Your task to perform on an android device: Open Reddit.com Image 0: 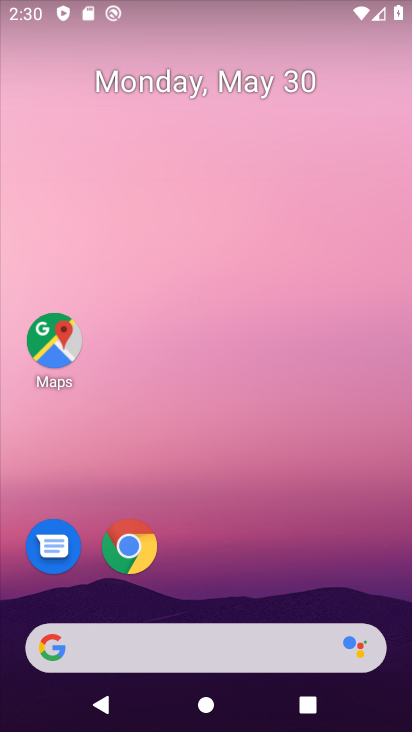
Step 0: drag from (304, 545) to (195, 128)
Your task to perform on an android device: Open Reddit.com Image 1: 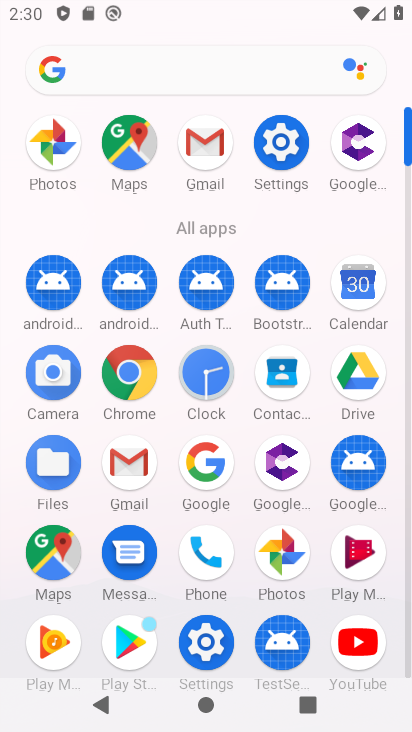
Step 1: click (132, 376)
Your task to perform on an android device: Open Reddit.com Image 2: 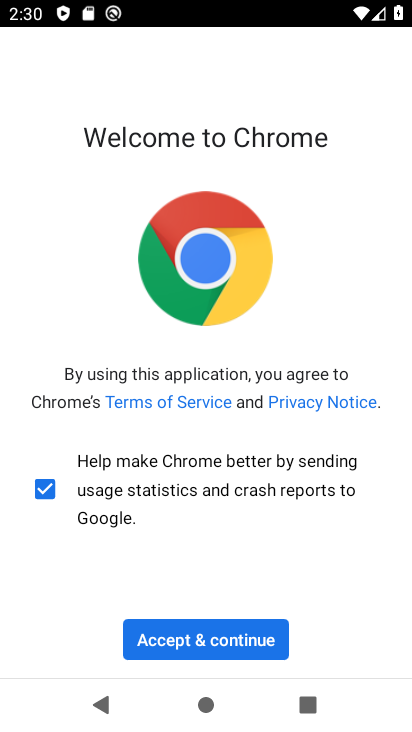
Step 2: click (257, 638)
Your task to perform on an android device: Open Reddit.com Image 3: 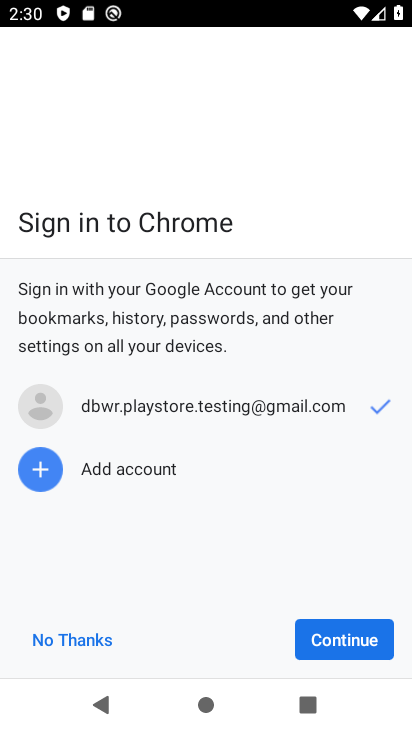
Step 3: click (383, 625)
Your task to perform on an android device: Open Reddit.com Image 4: 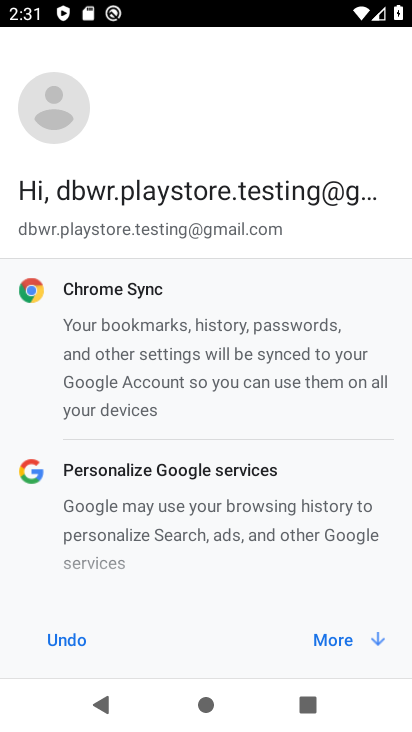
Step 4: click (379, 650)
Your task to perform on an android device: Open Reddit.com Image 5: 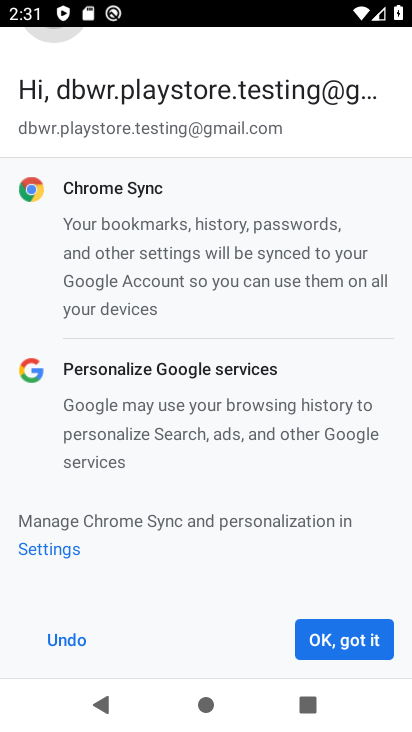
Step 5: click (374, 637)
Your task to perform on an android device: Open Reddit.com Image 6: 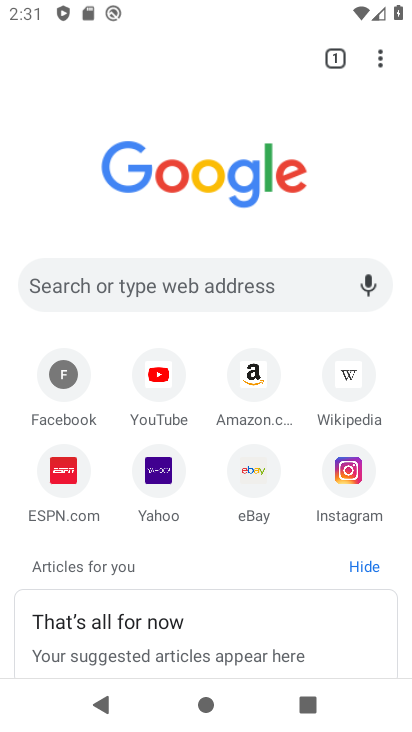
Step 6: click (218, 295)
Your task to perform on an android device: Open Reddit.com Image 7: 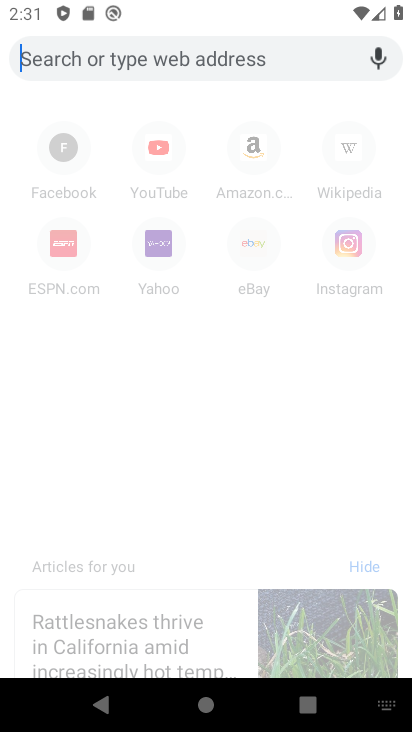
Step 7: type "reddit.com"
Your task to perform on an android device: Open Reddit.com Image 8: 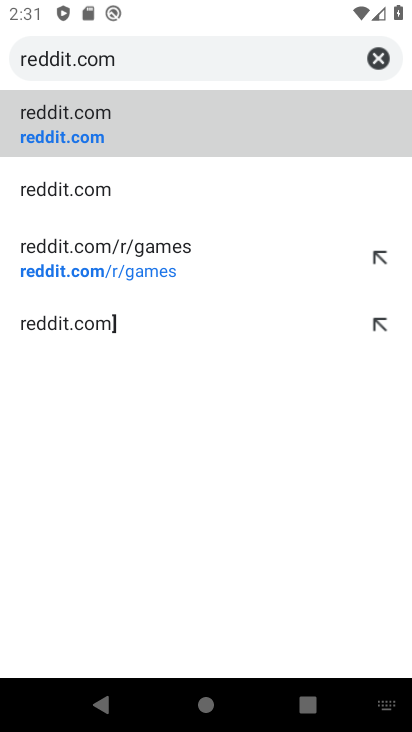
Step 8: click (65, 141)
Your task to perform on an android device: Open Reddit.com Image 9: 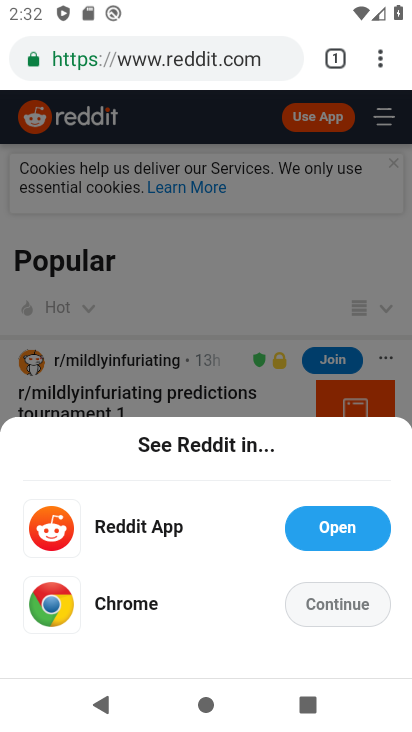
Step 9: task complete